Your task to perform on an android device: open sync settings in chrome Image 0: 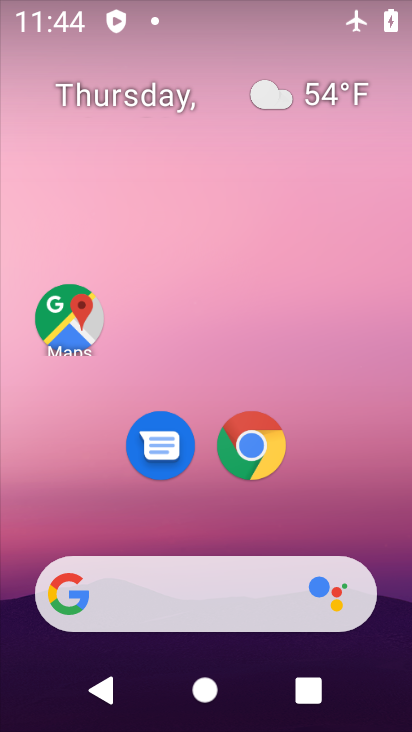
Step 0: drag from (387, 626) to (232, 85)
Your task to perform on an android device: open sync settings in chrome Image 1: 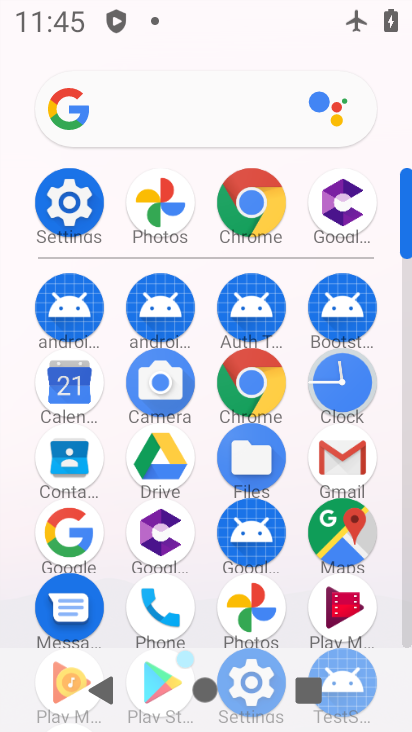
Step 1: click (242, 213)
Your task to perform on an android device: open sync settings in chrome Image 2: 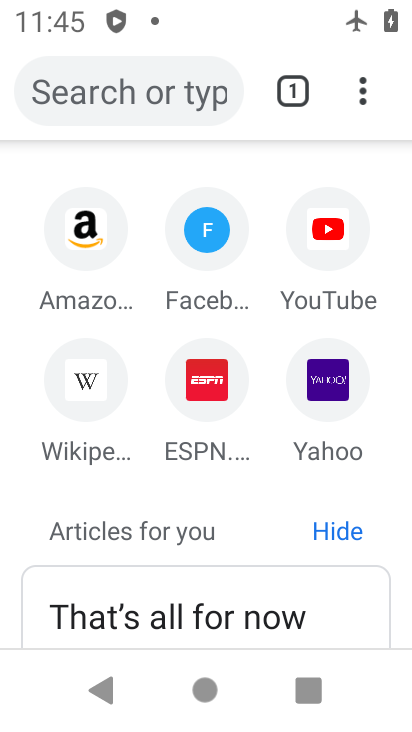
Step 2: click (364, 83)
Your task to perform on an android device: open sync settings in chrome Image 3: 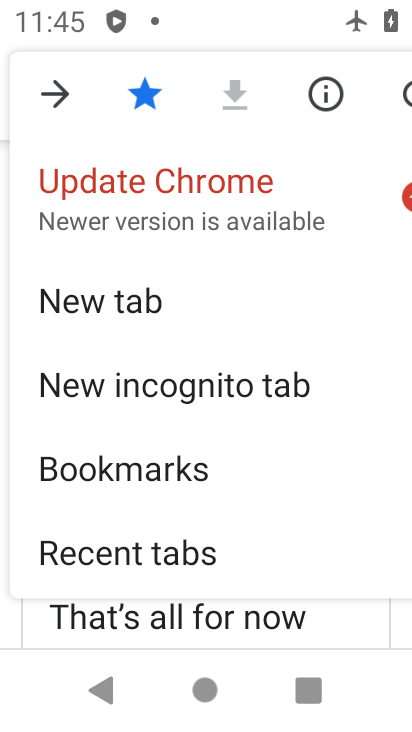
Step 3: drag from (148, 551) to (97, 120)
Your task to perform on an android device: open sync settings in chrome Image 4: 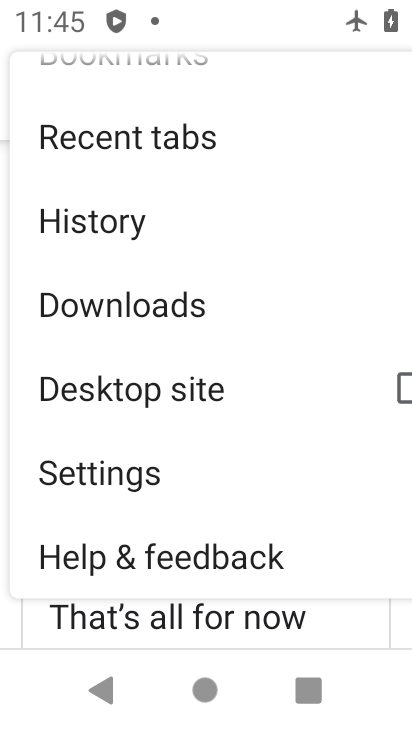
Step 4: drag from (128, 542) to (154, 172)
Your task to perform on an android device: open sync settings in chrome Image 5: 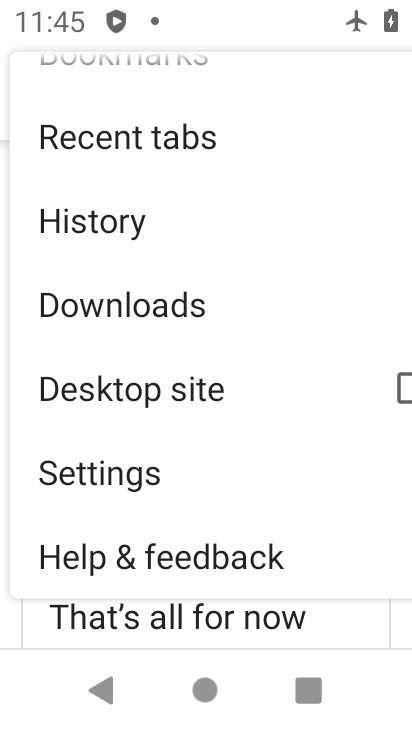
Step 5: click (96, 476)
Your task to perform on an android device: open sync settings in chrome Image 6: 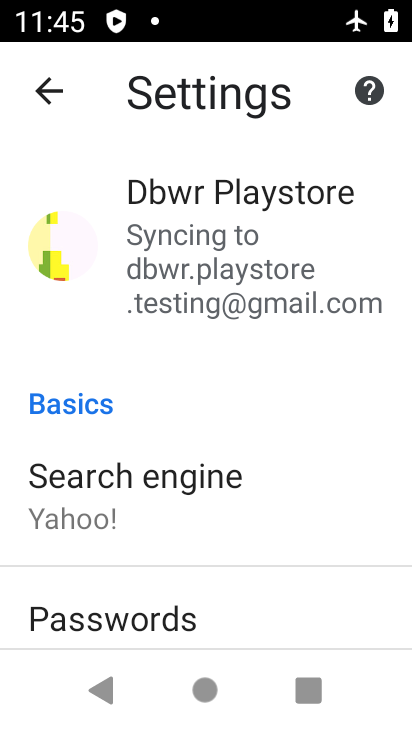
Step 6: drag from (123, 564) to (158, 177)
Your task to perform on an android device: open sync settings in chrome Image 7: 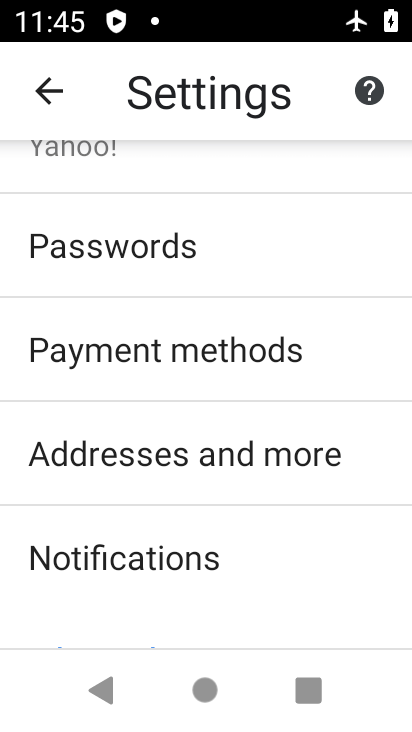
Step 7: drag from (138, 543) to (170, 181)
Your task to perform on an android device: open sync settings in chrome Image 8: 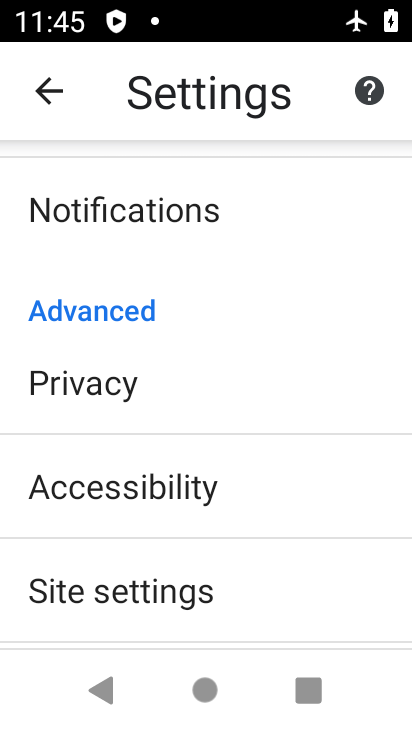
Step 8: drag from (166, 584) to (156, 234)
Your task to perform on an android device: open sync settings in chrome Image 9: 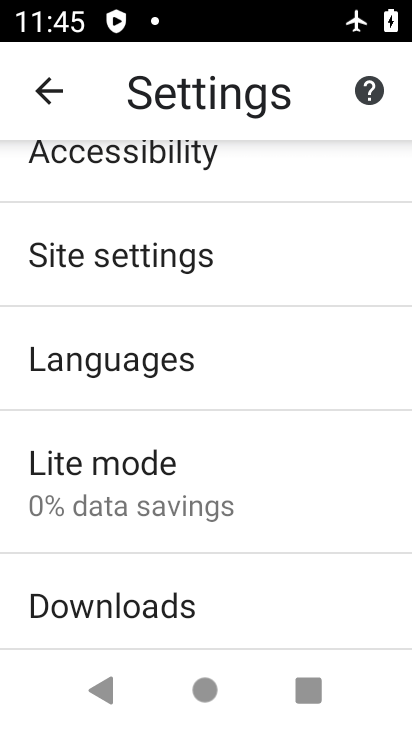
Step 9: click (242, 257)
Your task to perform on an android device: open sync settings in chrome Image 10: 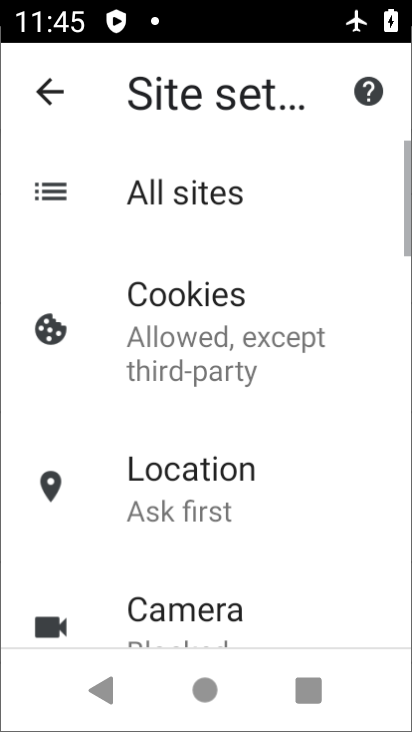
Step 10: drag from (213, 423) to (203, 198)
Your task to perform on an android device: open sync settings in chrome Image 11: 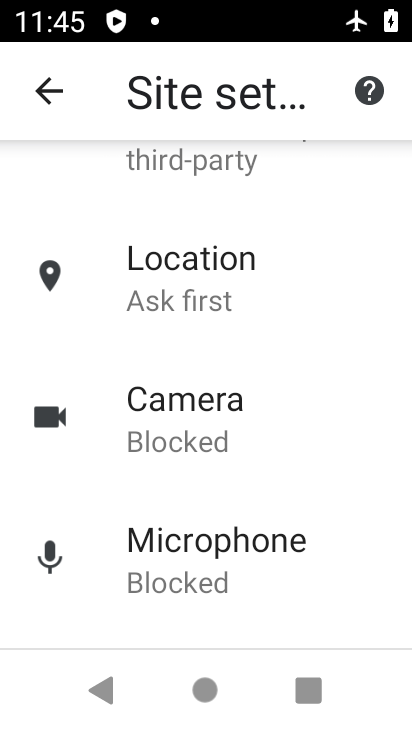
Step 11: drag from (166, 584) to (221, 140)
Your task to perform on an android device: open sync settings in chrome Image 12: 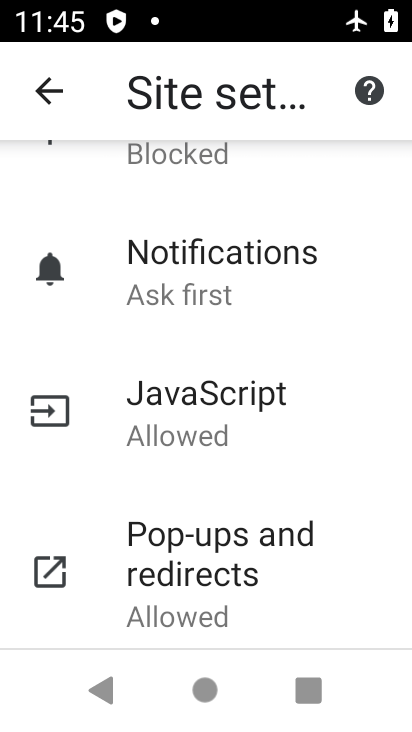
Step 12: drag from (227, 556) to (251, 179)
Your task to perform on an android device: open sync settings in chrome Image 13: 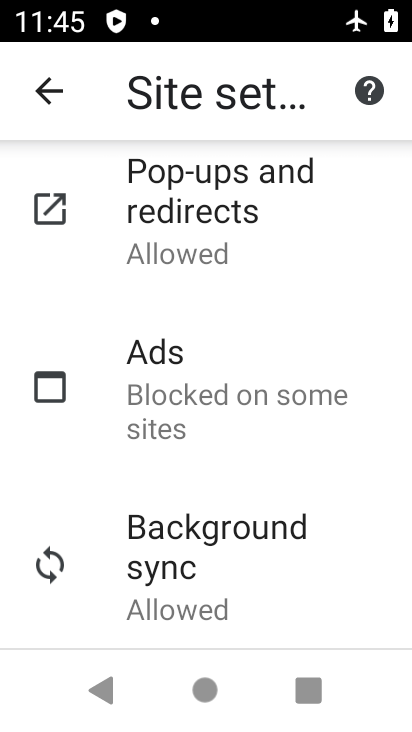
Step 13: click (221, 576)
Your task to perform on an android device: open sync settings in chrome Image 14: 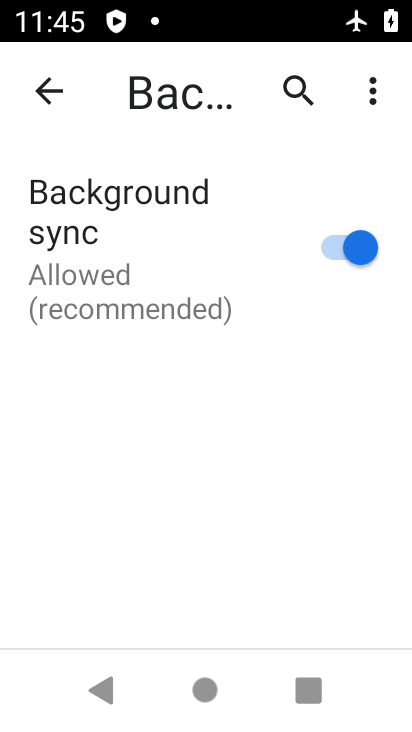
Step 14: task complete